Your task to perform on an android device: What's the weather today? Image 0: 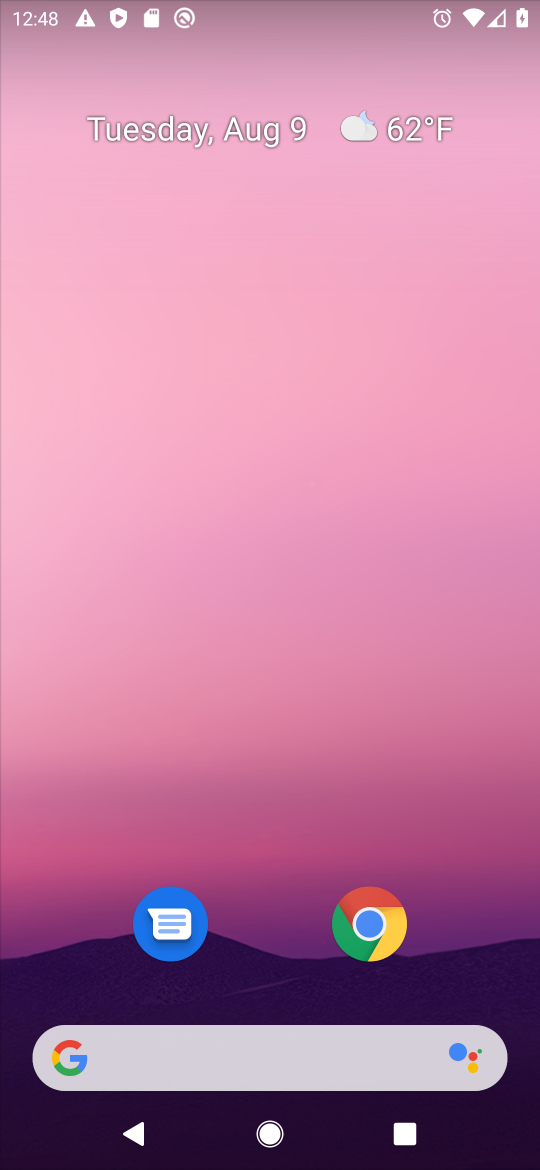
Step 0: click (305, 1046)
Your task to perform on an android device: What's the weather today? Image 1: 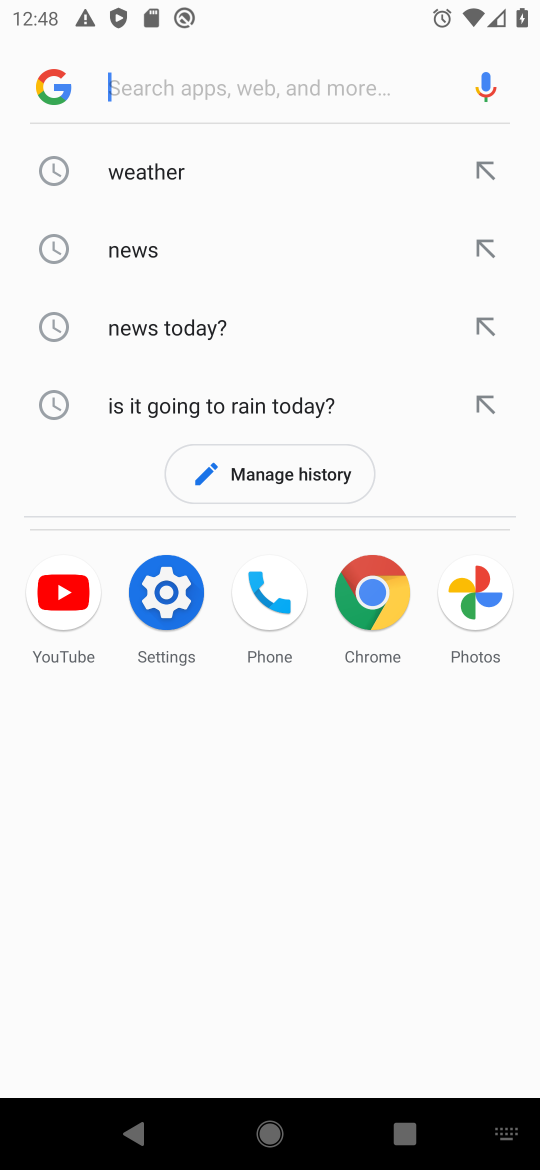
Step 1: click (151, 144)
Your task to perform on an android device: What's the weather today? Image 2: 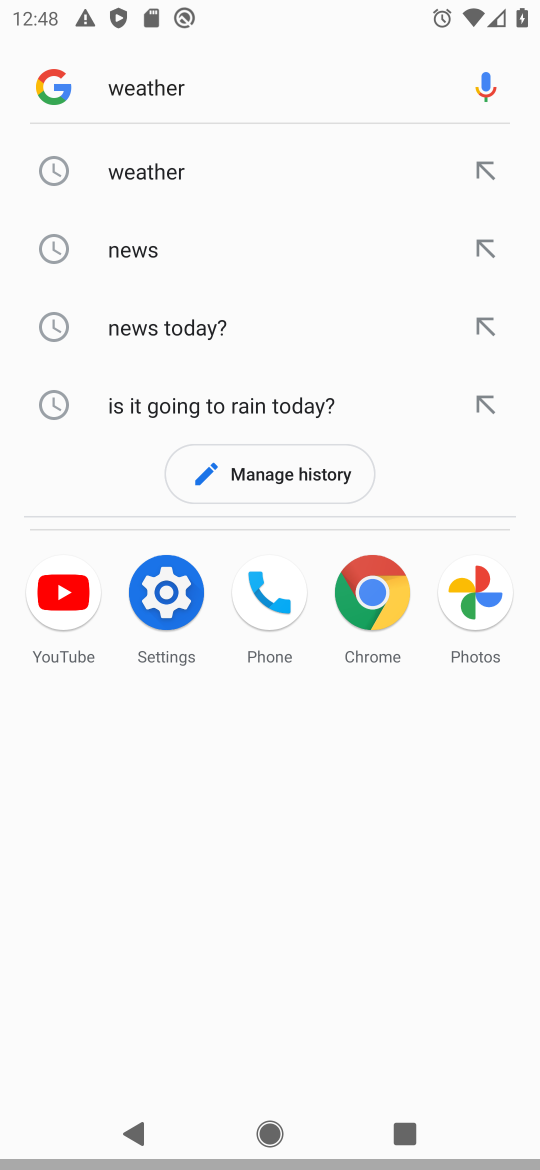
Step 2: task complete